Your task to perform on an android device: Open notification settings Image 0: 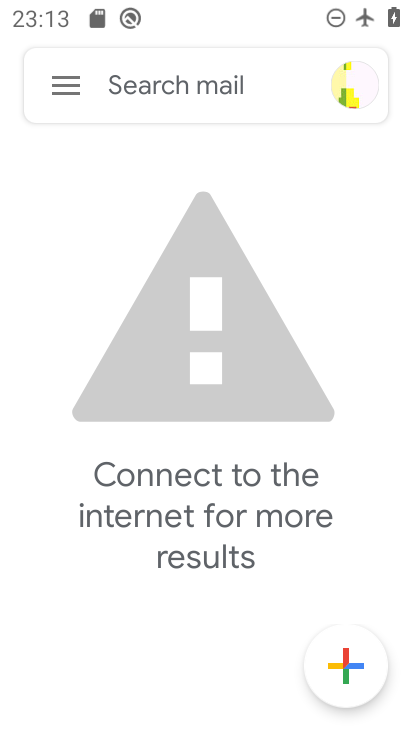
Step 0: press home button
Your task to perform on an android device: Open notification settings Image 1: 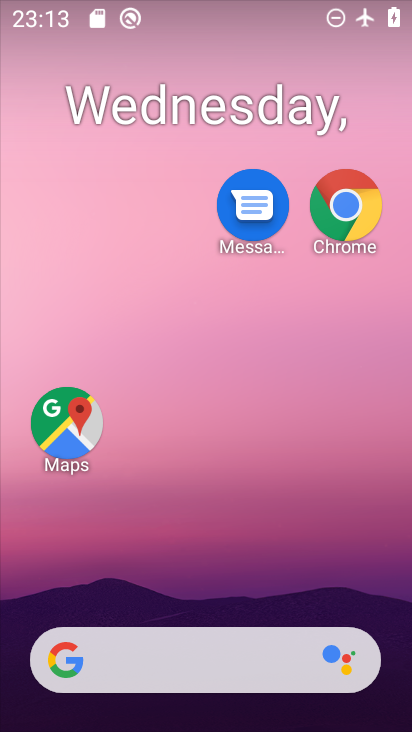
Step 1: drag from (178, 593) to (230, 62)
Your task to perform on an android device: Open notification settings Image 2: 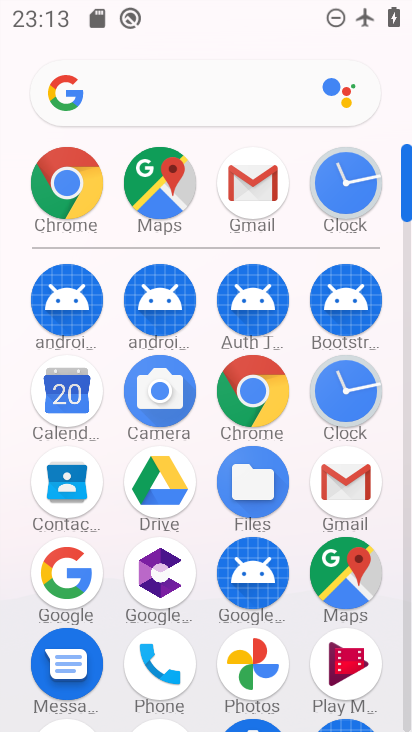
Step 2: drag from (202, 652) to (226, 188)
Your task to perform on an android device: Open notification settings Image 3: 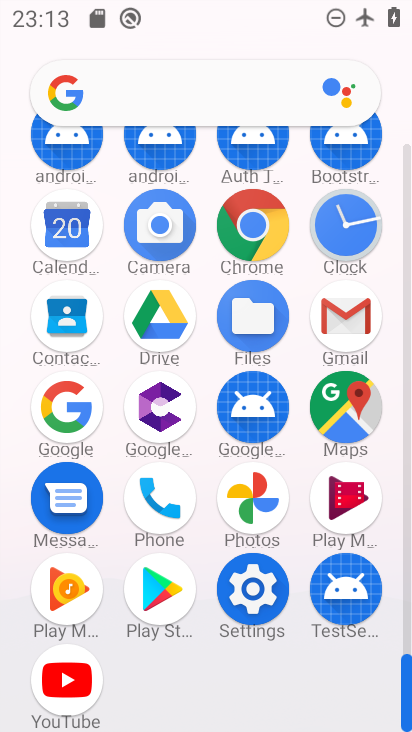
Step 3: click (265, 587)
Your task to perform on an android device: Open notification settings Image 4: 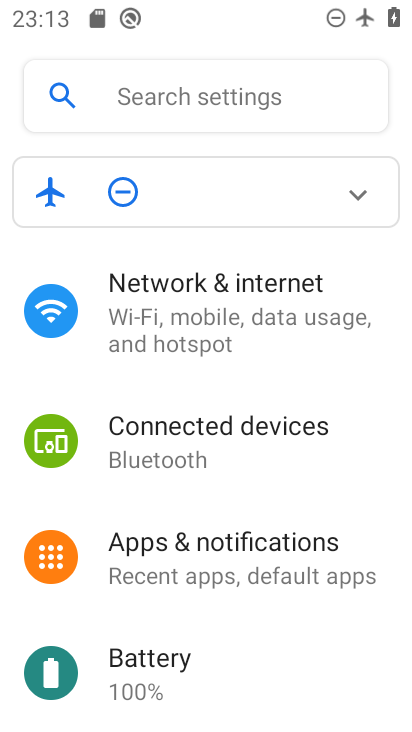
Step 4: click (218, 591)
Your task to perform on an android device: Open notification settings Image 5: 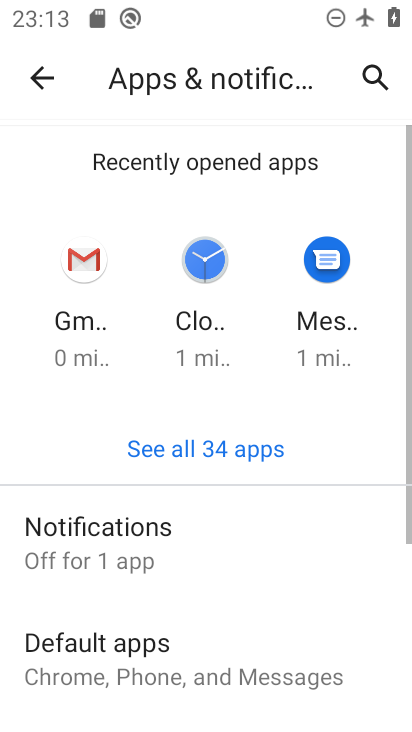
Step 5: drag from (182, 694) to (194, 206)
Your task to perform on an android device: Open notification settings Image 6: 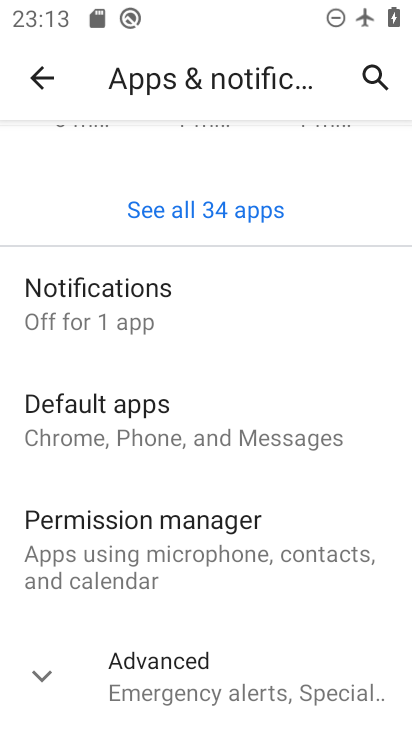
Step 6: click (164, 319)
Your task to perform on an android device: Open notification settings Image 7: 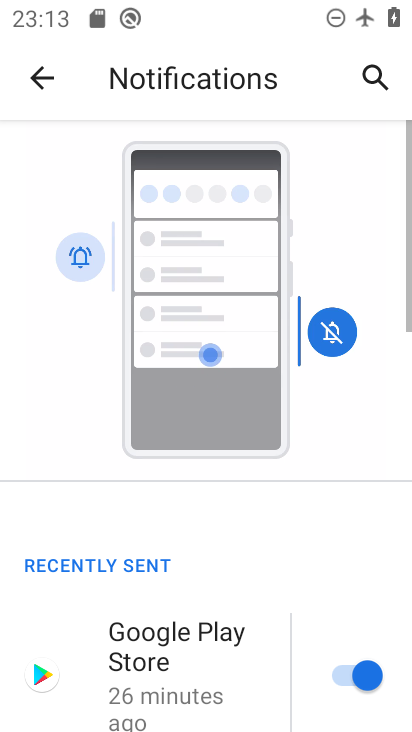
Step 7: task complete